Your task to perform on an android device: Open Maps and search for coffee Image 0: 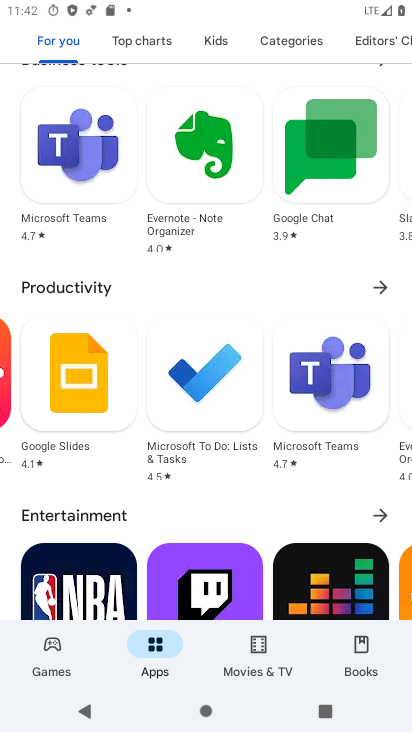
Step 0: press home button
Your task to perform on an android device: Open Maps and search for coffee Image 1: 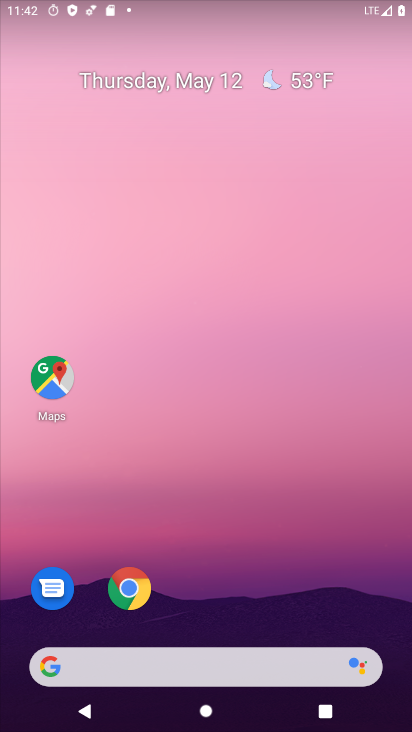
Step 1: click (45, 384)
Your task to perform on an android device: Open Maps and search for coffee Image 2: 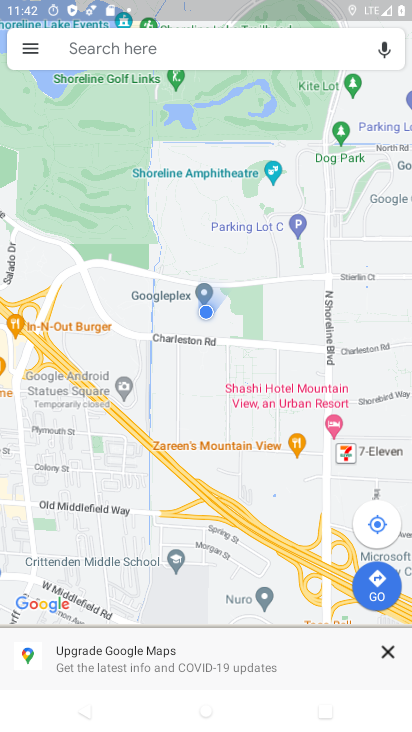
Step 2: click (151, 40)
Your task to perform on an android device: Open Maps and search for coffee Image 3: 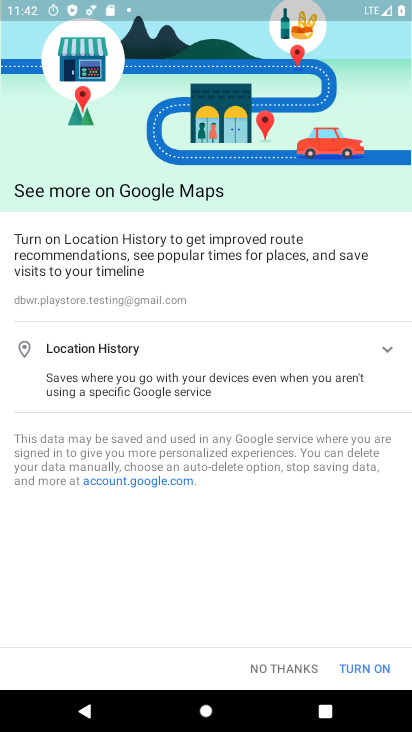
Step 3: type "coffee"
Your task to perform on an android device: Open Maps and search for coffee Image 4: 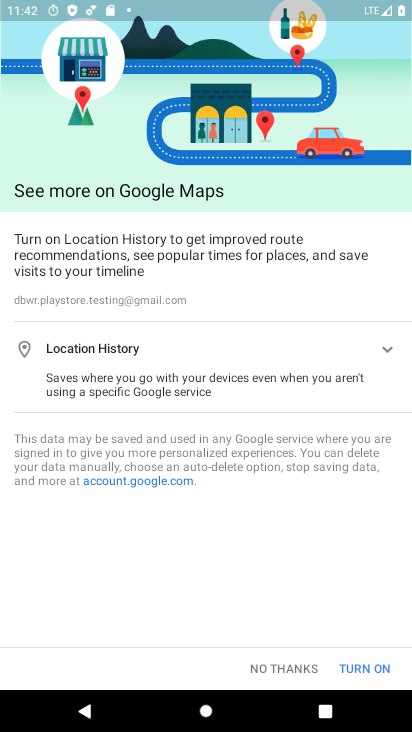
Step 4: click (270, 668)
Your task to perform on an android device: Open Maps and search for coffee Image 5: 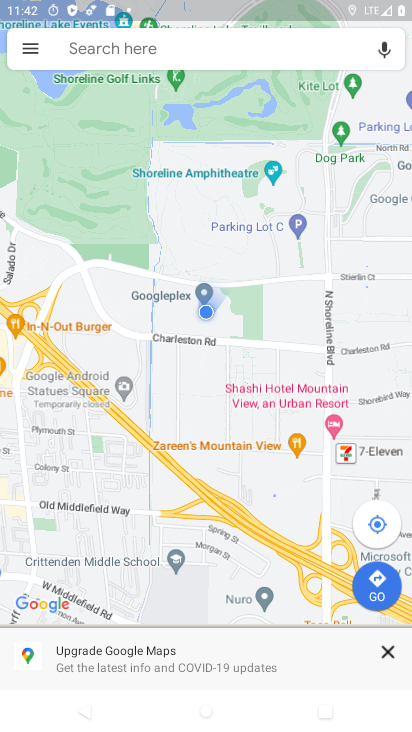
Step 5: type "coffee"
Your task to perform on an android device: Open Maps and search for coffee Image 6: 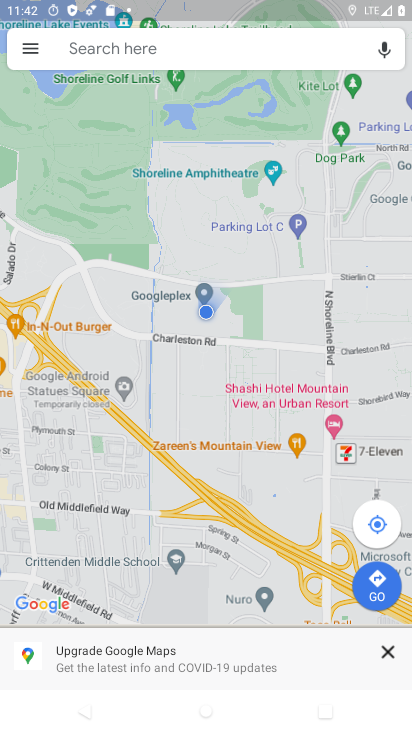
Step 6: click (205, 55)
Your task to perform on an android device: Open Maps and search for coffee Image 7: 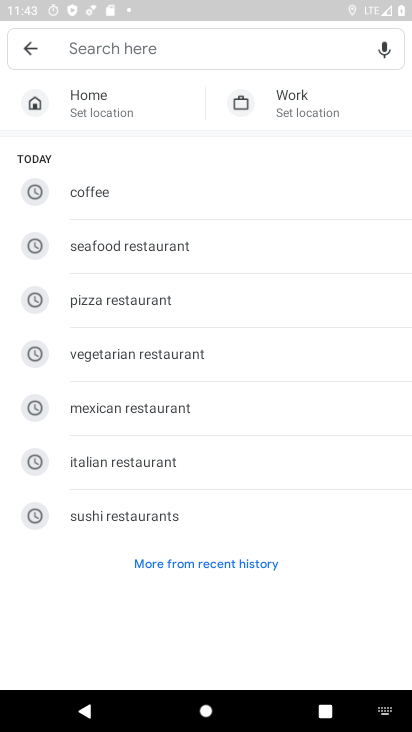
Step 7: type "coffee"
Your task to perform on an android device: Open Maps and search for coffee Image 8: 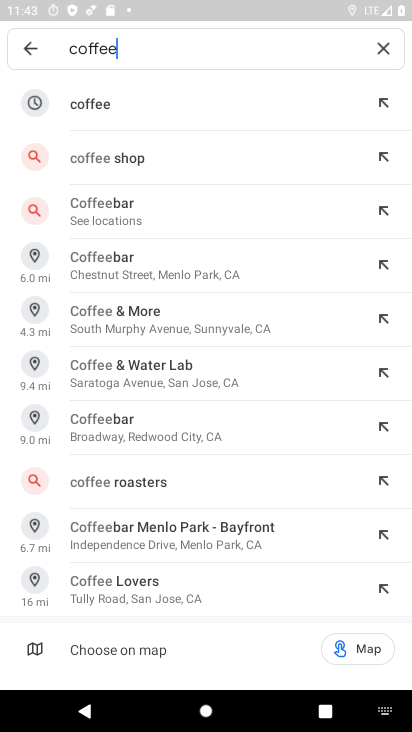
Step 8: click (90, 103)
Your task to perform on an android device: Open Maps and search for coffee Image 9: 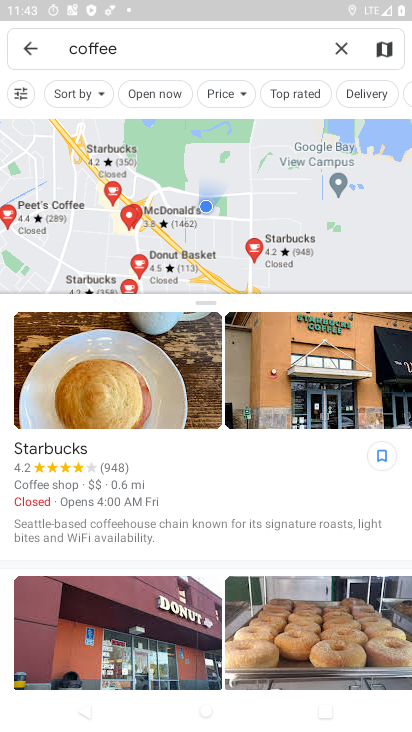
Step 9: task complete